Your task to perform on an android device: install app "Gmail" Image 0: 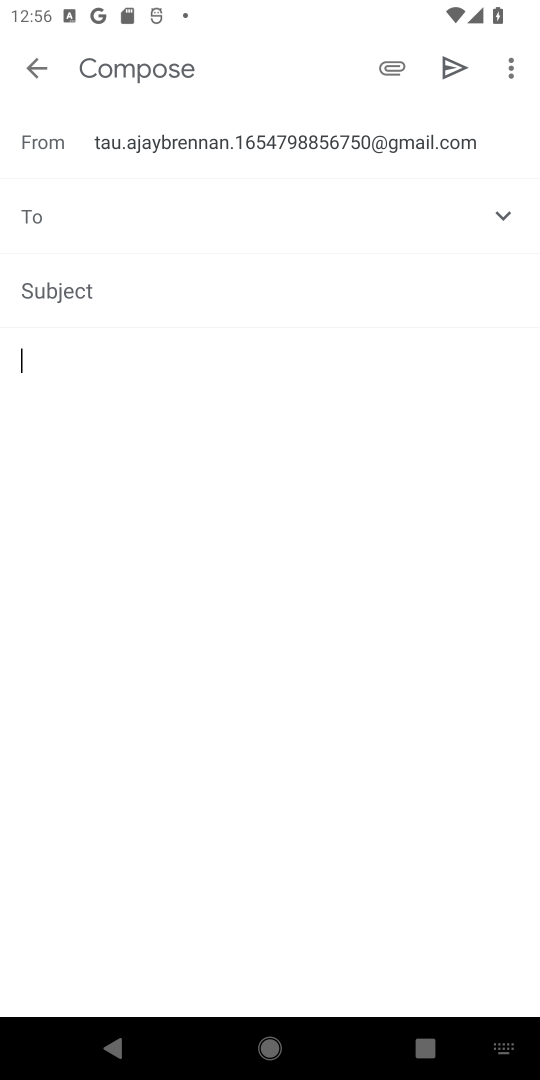
Step 0: press home button
Your task to perform on an android device: install app "Gmail" Image 1: 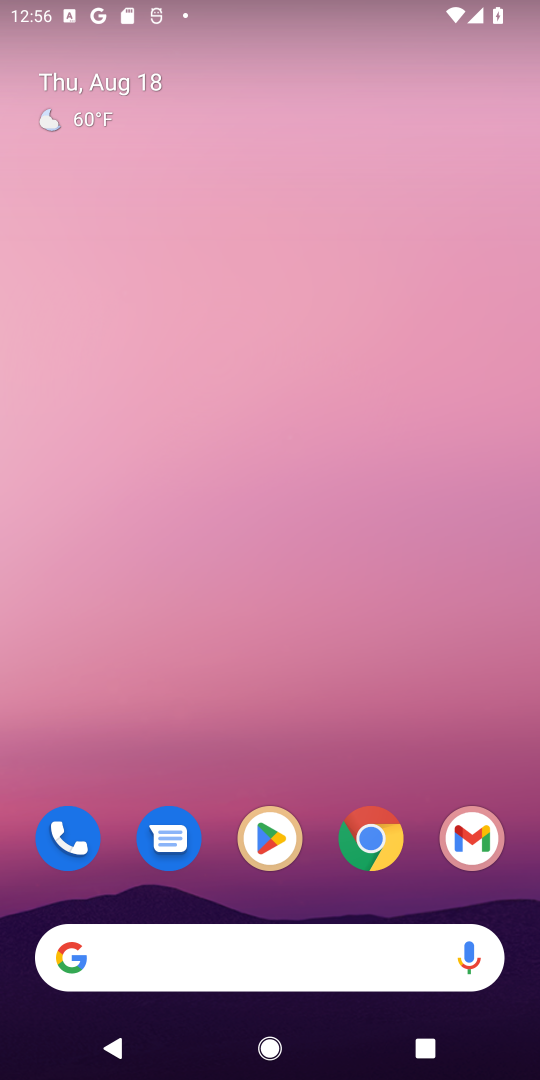
Step 1: click (274, 814)
Your task to perform on an android device: install app "Gmail" Image 2: 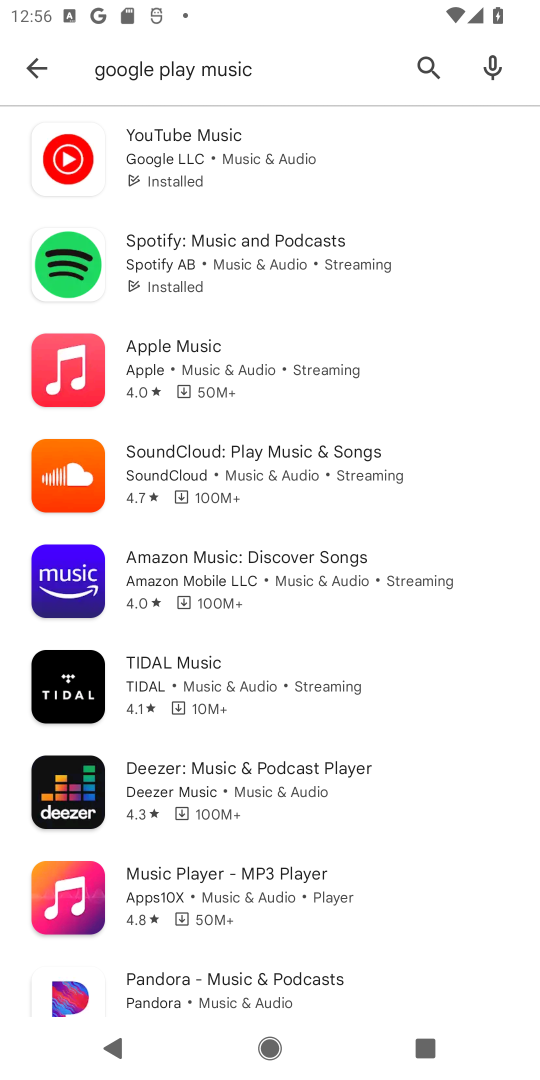
Step 2: click (423, 53)
Your task to perform on an android device: install app "Gmail" Image 3: 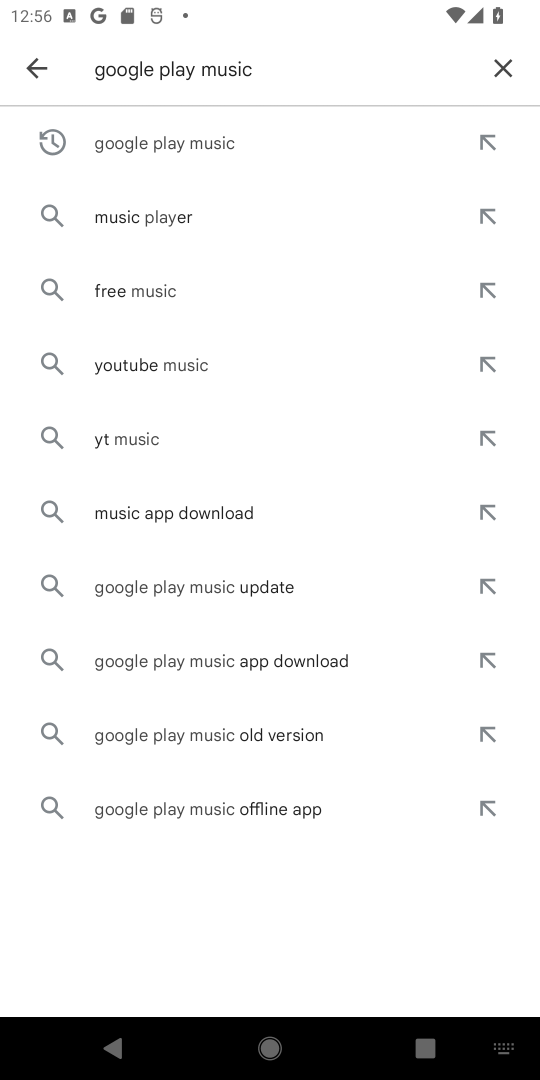
Step 3: click (497, 68)
Your task to perform on an android device: install app "Gmail" Image 4: 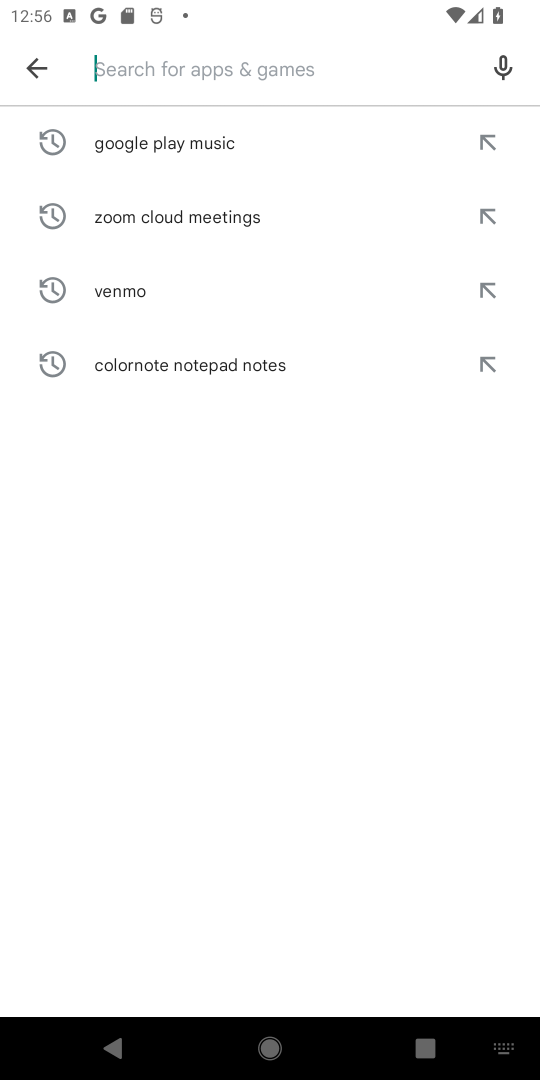
Step 4: type "Gmail"
Your task to perform on an android device: install app "Gmail" Image 5: 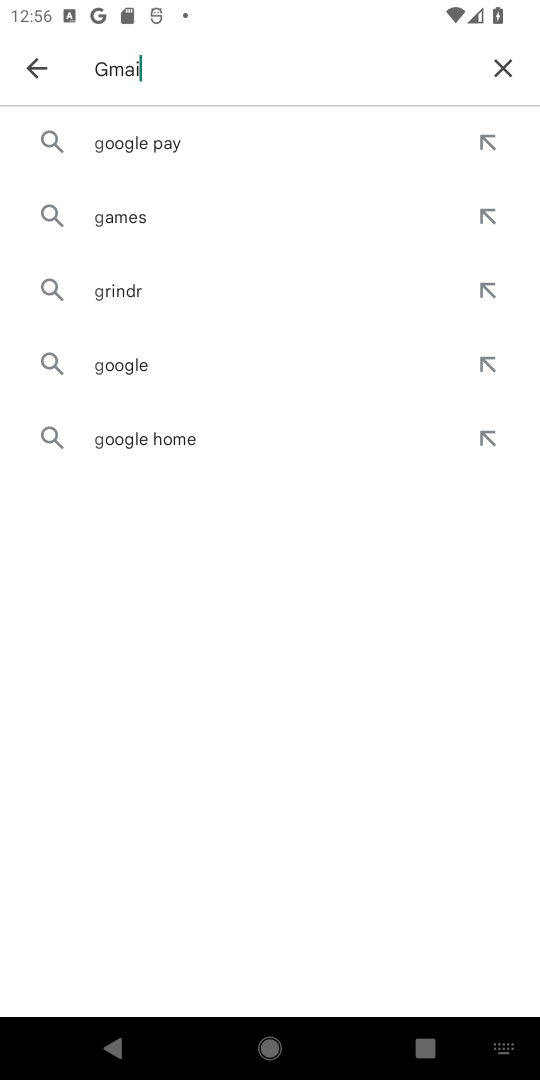
Step 5: type ""
Your task to perform on an android device: install app "Gmail" Image 6: 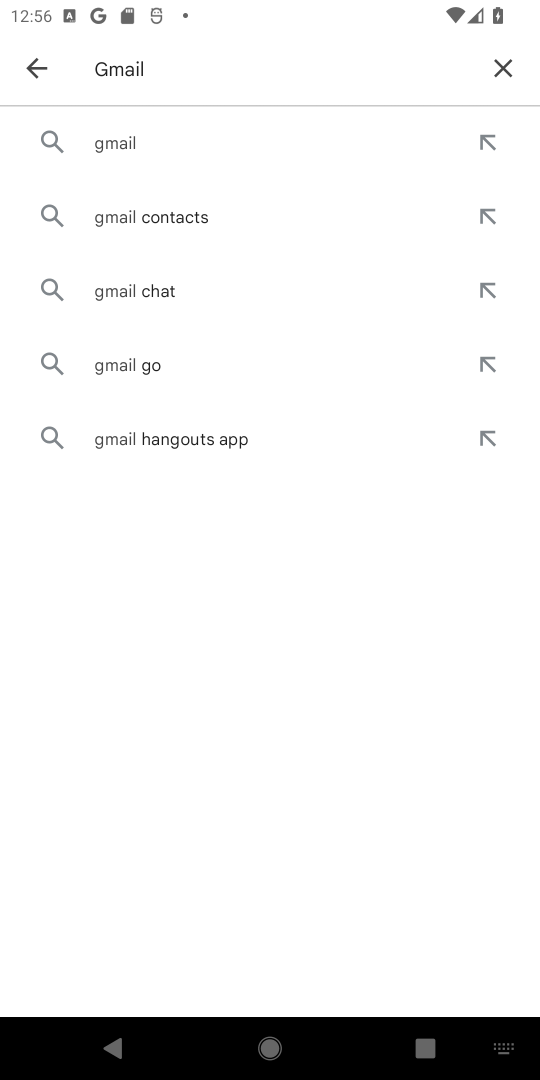
Step 6: click (169, 141)
Your task to perform on an android device: install app "Gmail" Image 7: 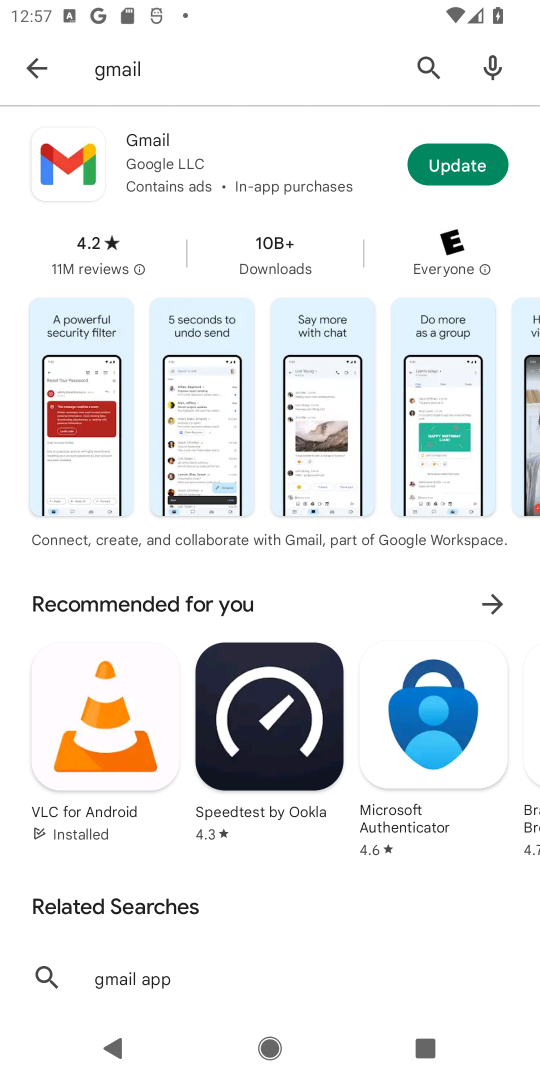
Step 7: click (284, 163)
Your task to perform on an android device: install app "Gmail" Image 8: 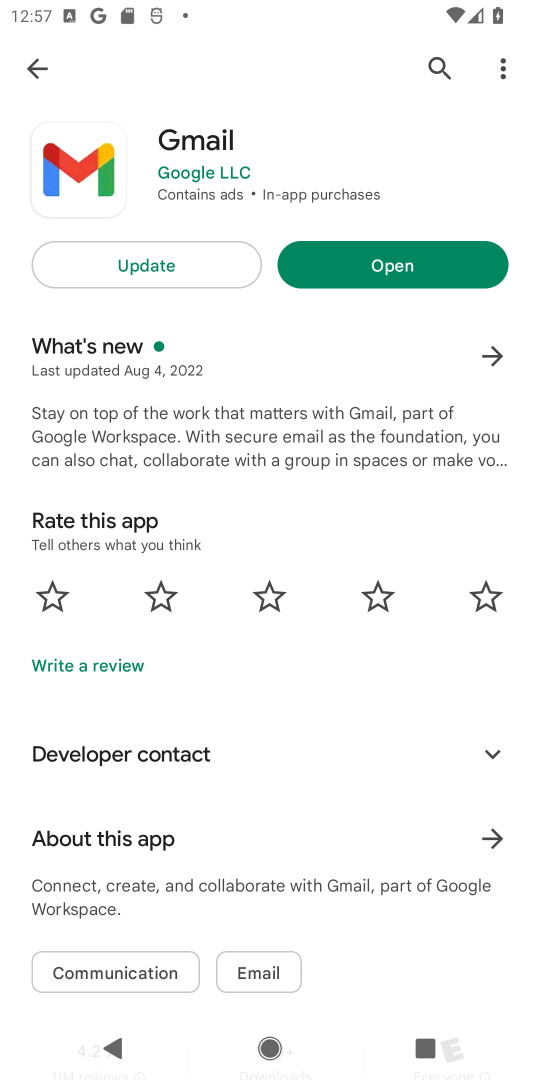
Step 8: task complete